Your task to perform on an android device: Open Android settings Image 0: 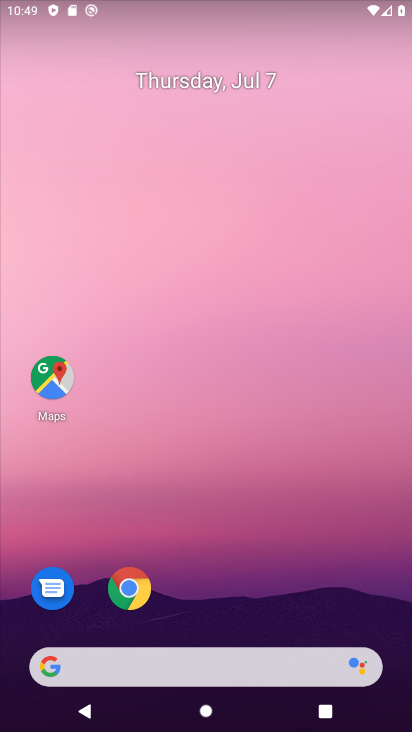
Step 0: drag from (288, 616) to (231, 126)
Your task to perform on an android device: Open Android settings Image 1: 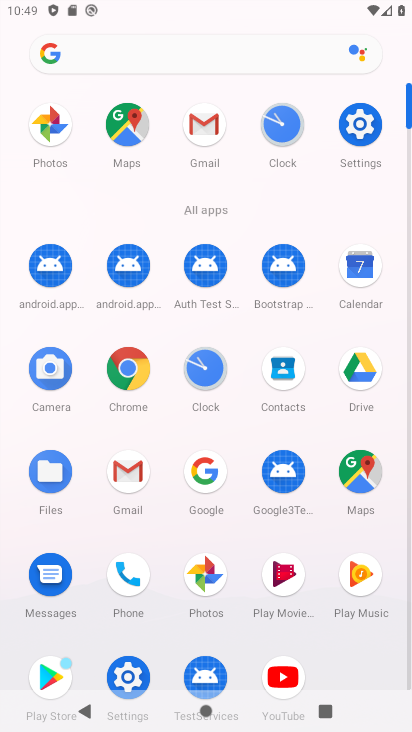
Step 1: click (365, 123)
Your task to perform on an android device: Open Android settings Image 2: 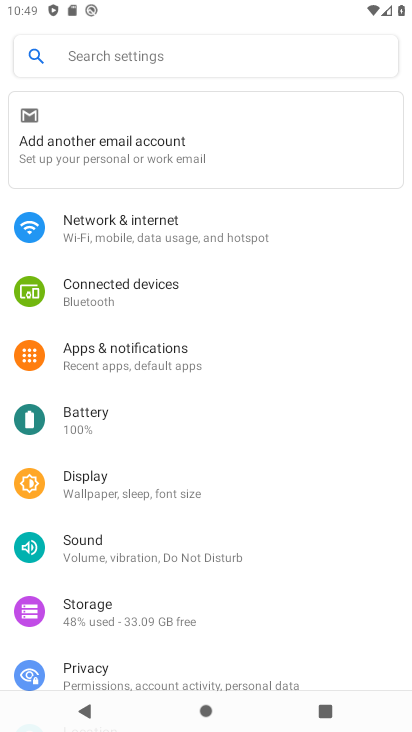
Step 2: task complete